Your task to perform on an android device: turn on airplane mode Image 0: 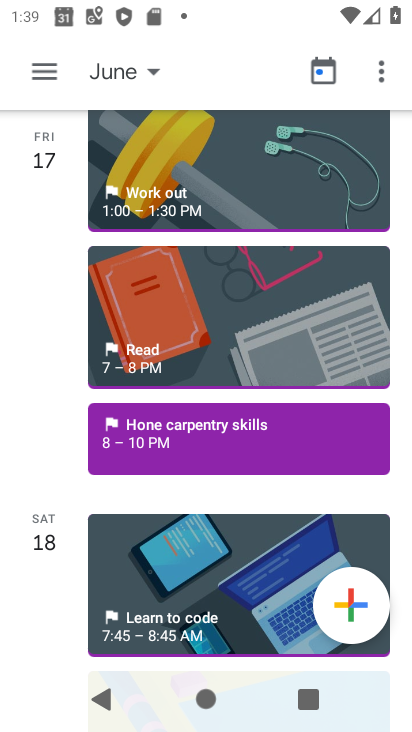
Step 0: press home button
Your task to perform on an android device: turn on airplane mode Image 1: 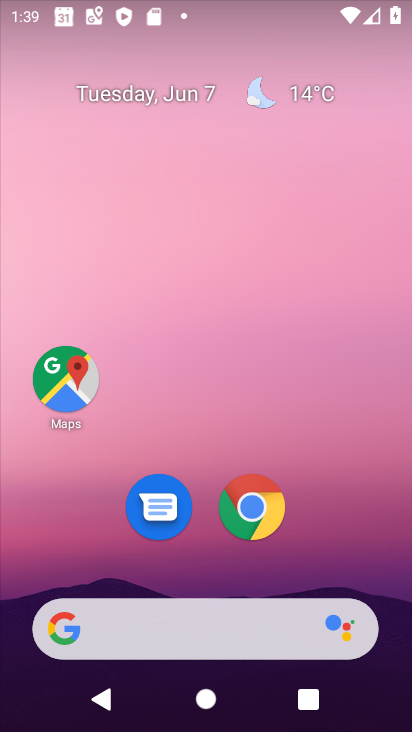
Step 1: drag from (402, 629) to (342, 74)
Your task to perform on an android device: turn on airplane mode Image 2: 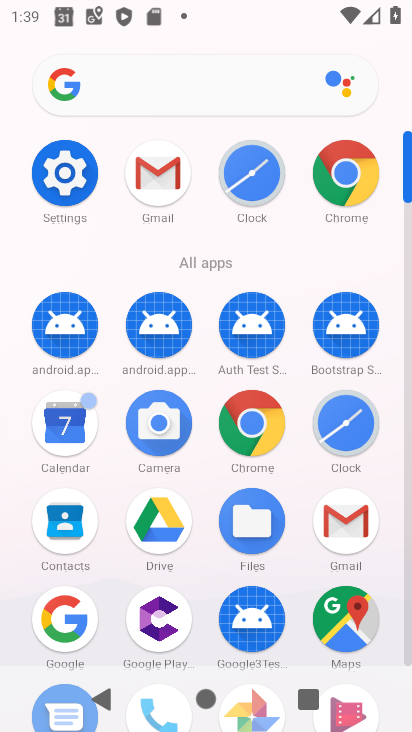
Step 2: click (404, 648)
Your task to perform on an android device: turn on airplane mode Image 3: 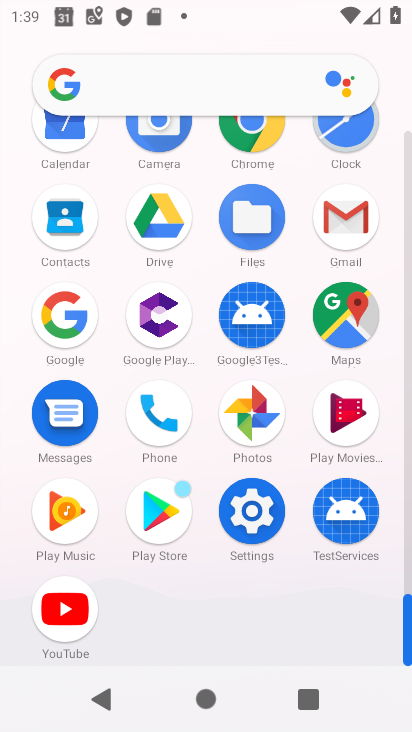
Step 3: click (248, 509)
Your task to perform on an android device: turn on airplane mode Image 4: 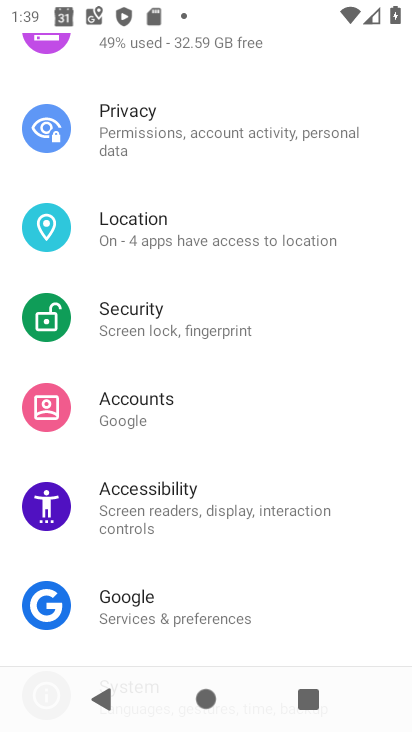
Step 4: drag from (360, 102) to (345, 449)
Your task to perform on an android device: turn on airplane mode Image 5: 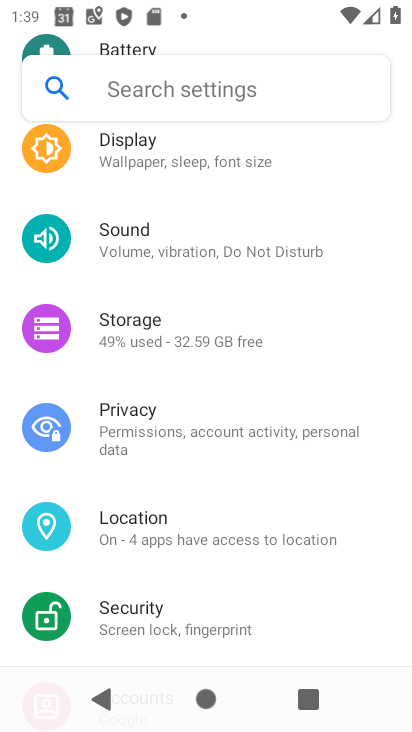
Step 5: drag from (338, 149) to (355, 490)
Your task to perform on an android device: turn on airplane mode Image 6: 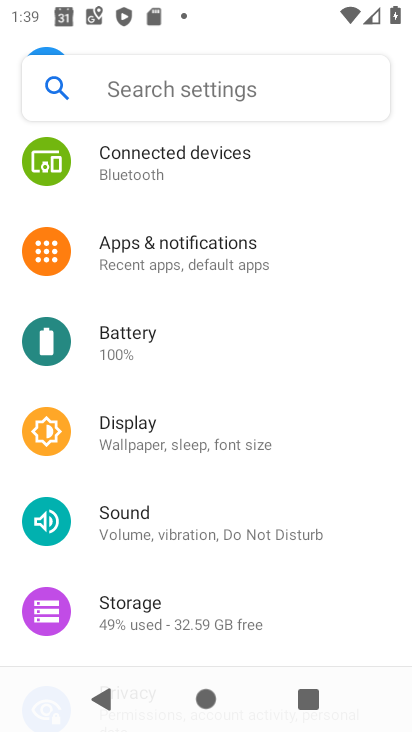
Step 6: drag from (316, 177) to (326, 435)
Your task to perform on an android device: turn on airplane mode Image 7: 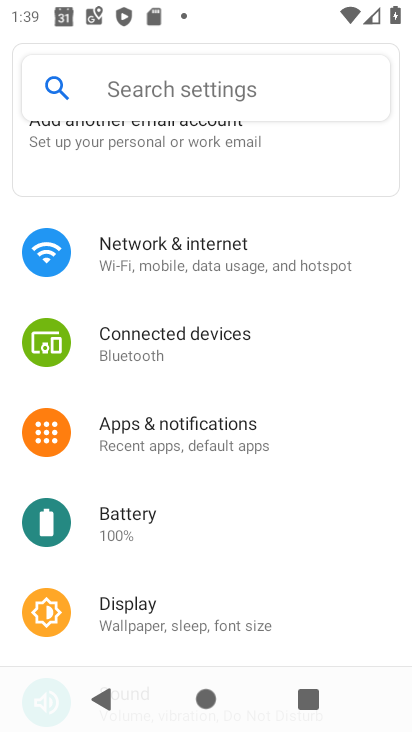
Step 7: click (161, 241)
Your task to perform on an android device: turn on airplane mode Image 8: 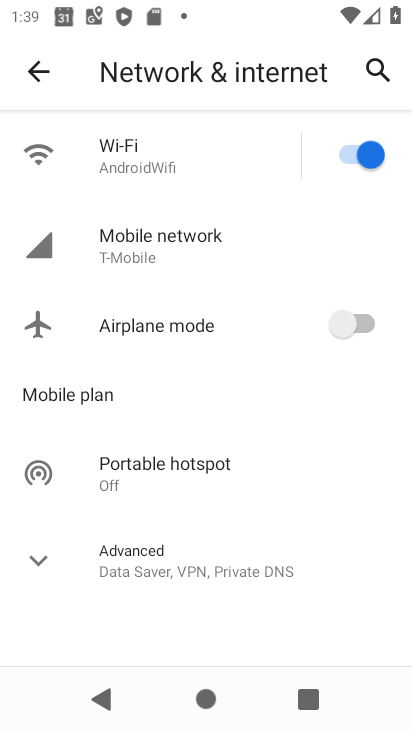
Step 8: click (361, 318)
Your task to perform on an android device: turn on airplane mode Image 9: 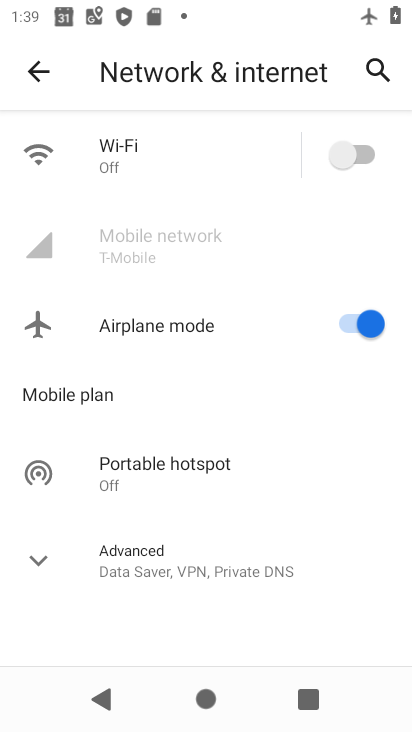
Step 9: task complete